Your task to perform on an android device: Open Reddit.com Image 0: 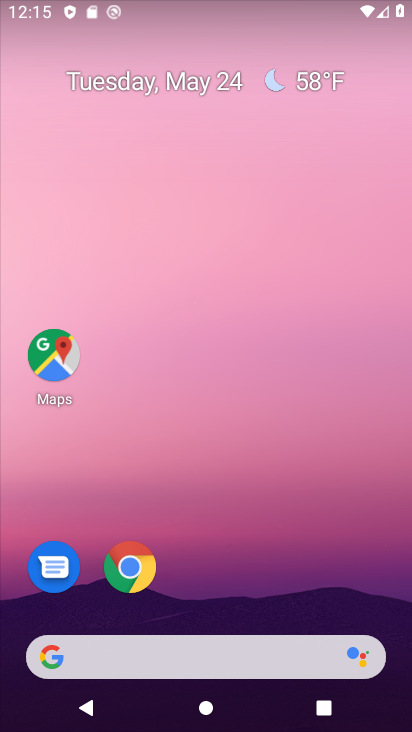
Step 0: drag from (227, 663) to (180, 149)
Your task to perform on an android device: Open Reddit.com Image 1: 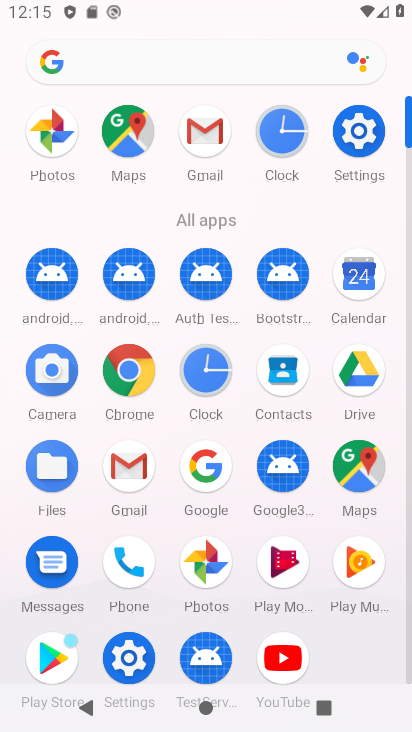
Step 1: click (132, 395)
Your task to perform on an android device: Open Reddit.com Image 2: 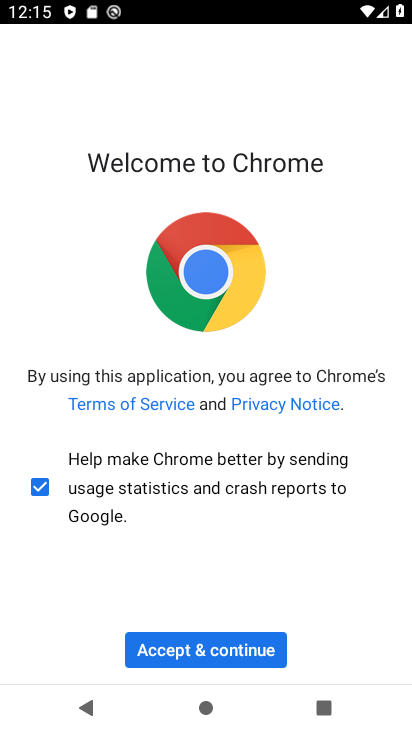
Step 2: click (235, 665)
Your task to perform on an android device: Open Reddit.com Image 3: 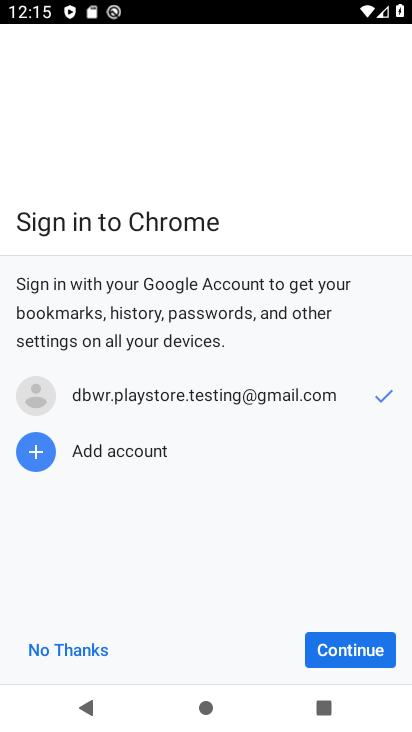
Step 3: click (350, 665)
Your task to perform on an android device: Open Reddit.com Image 4: 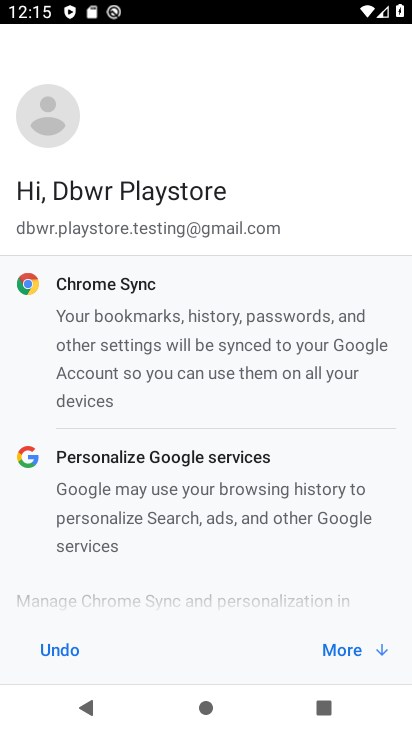
Step 4: click (350, 663)
Your task to perform on an android device: Open Reddit.com Image 5: 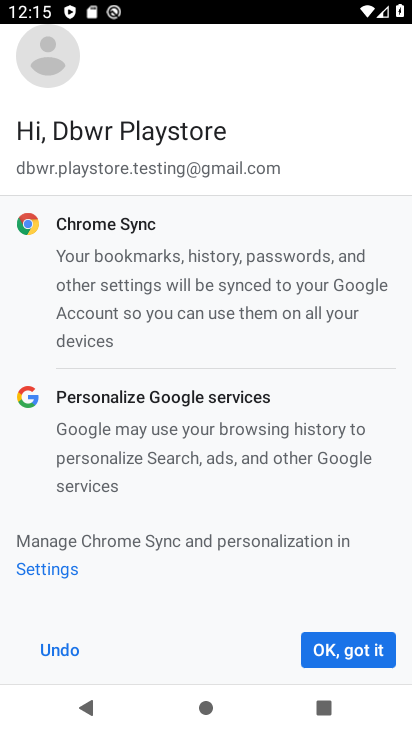
Step 5: click (381, 657)
Your task to perform on an android device: Open Reddit.com Image 6: 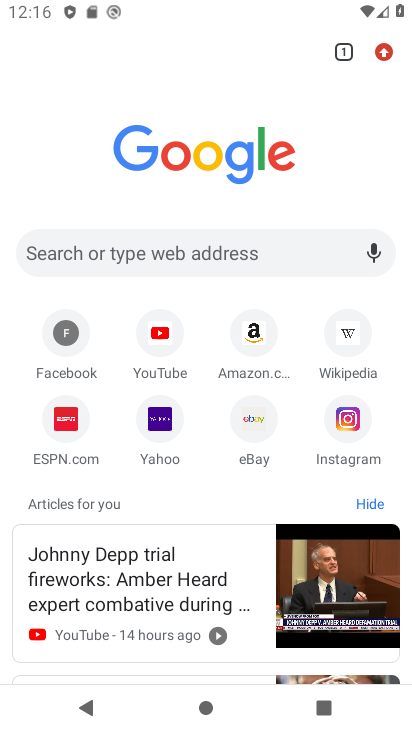
Step 6: click (152, 237)
Your task to perform on an android device: Open Reddit.com Image 7: 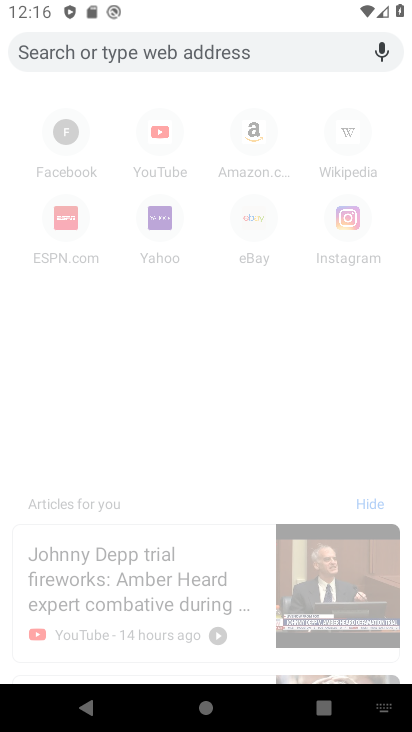
Step 7: type "reddit.com"
Your task to perform on an android device: Open Reddit.com Image 8: 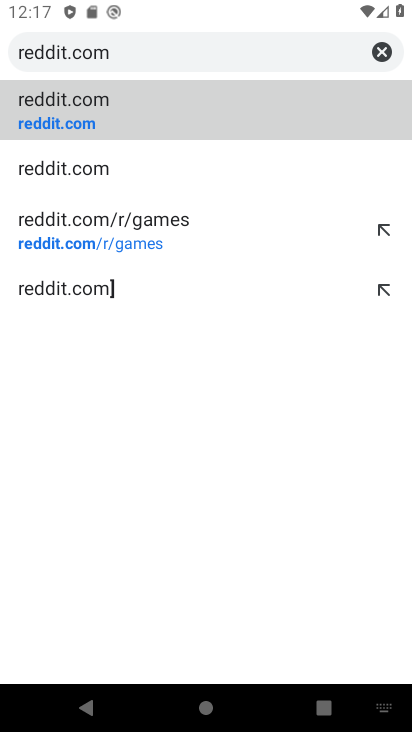
Step 8: click (73, 129)
Your task to perform on an android device: Open Reddit.com Image 9: 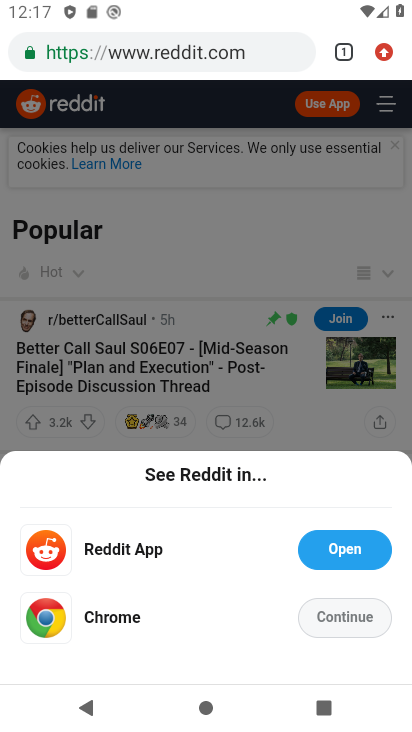
Step 9: task complete